Your task to perform on an android device: turn on the 12-hour format for clock Image 0: 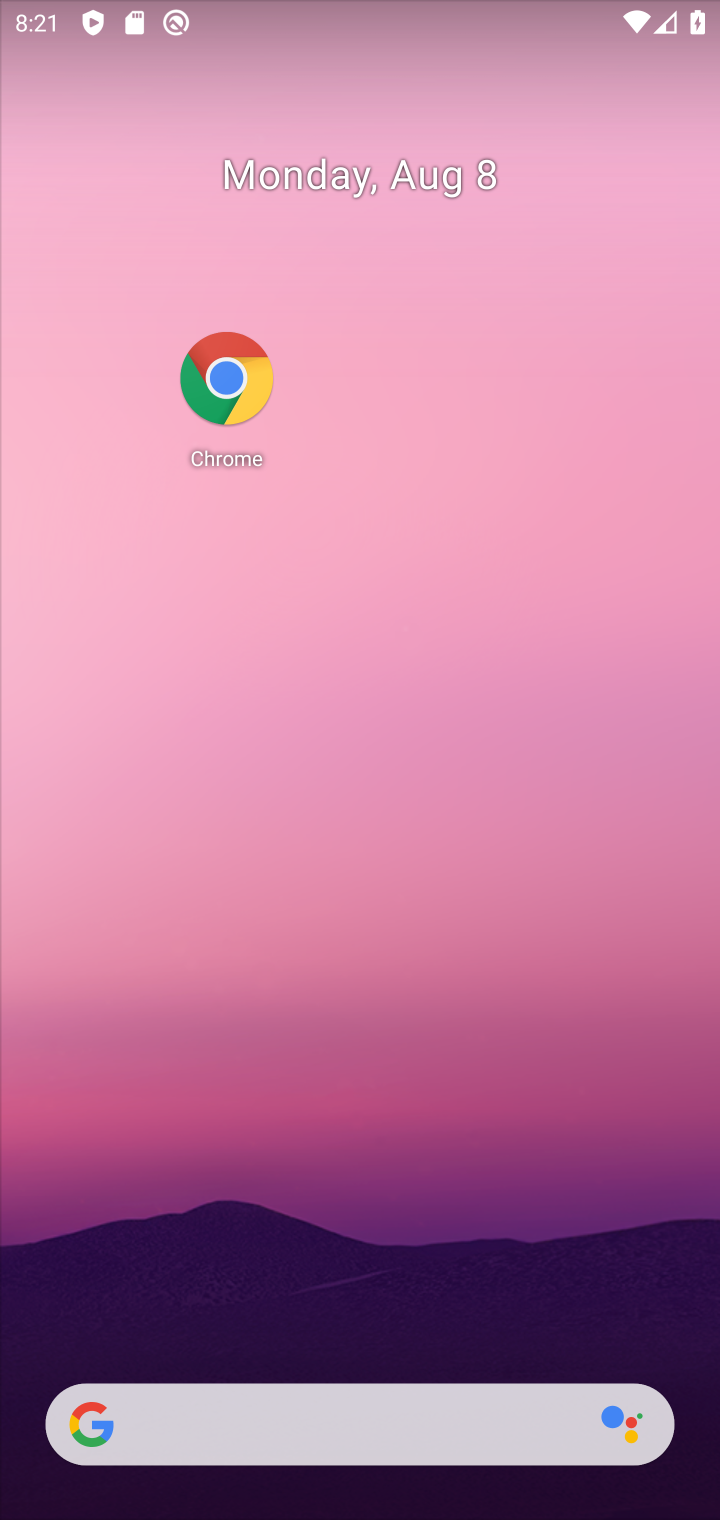
Step 0: drag from (239, 1276) to (407, 339)
Your task to perform on an android device: turn on the 12-hour format for clock Image 1: 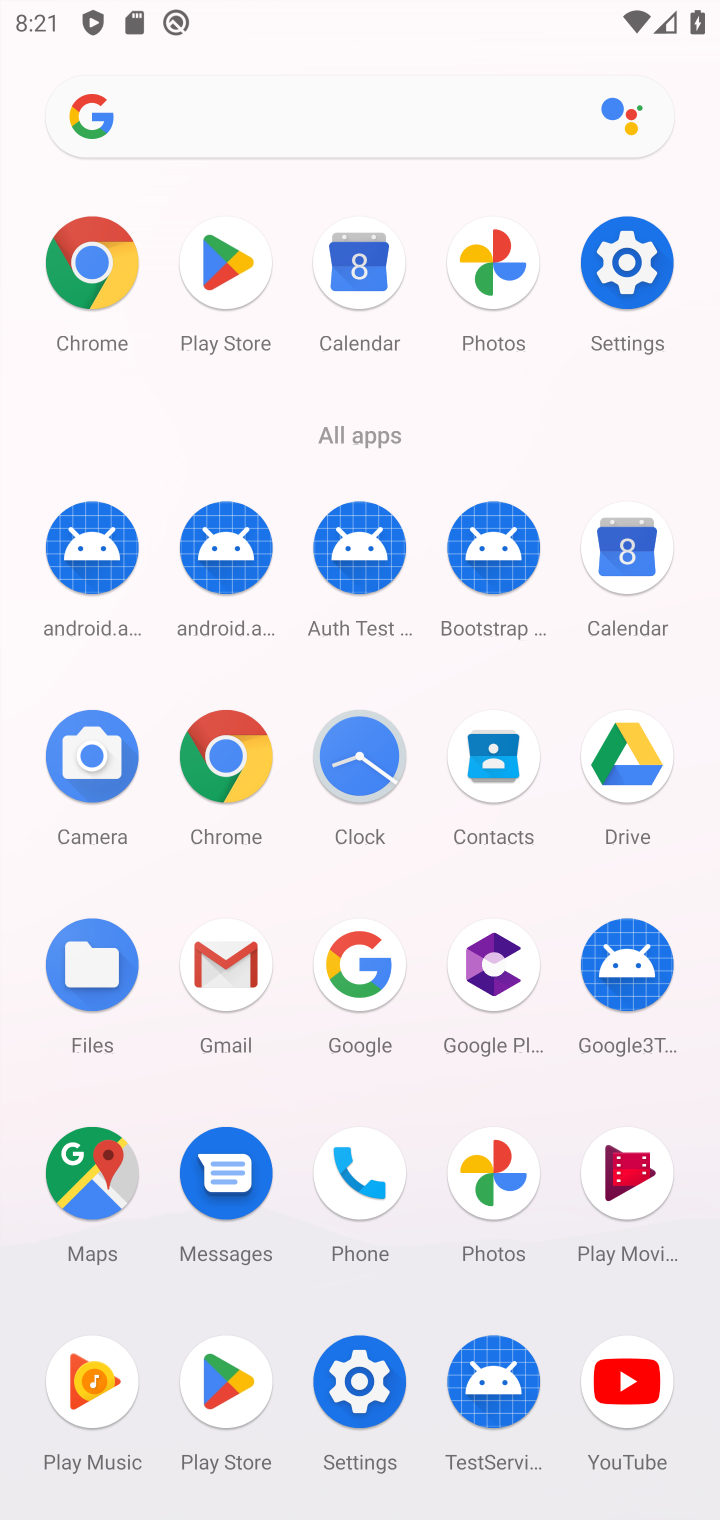
Step 1: click (369, 766)
Your task to perform on an android device: turn on the 12-hour format for clock Image 2: 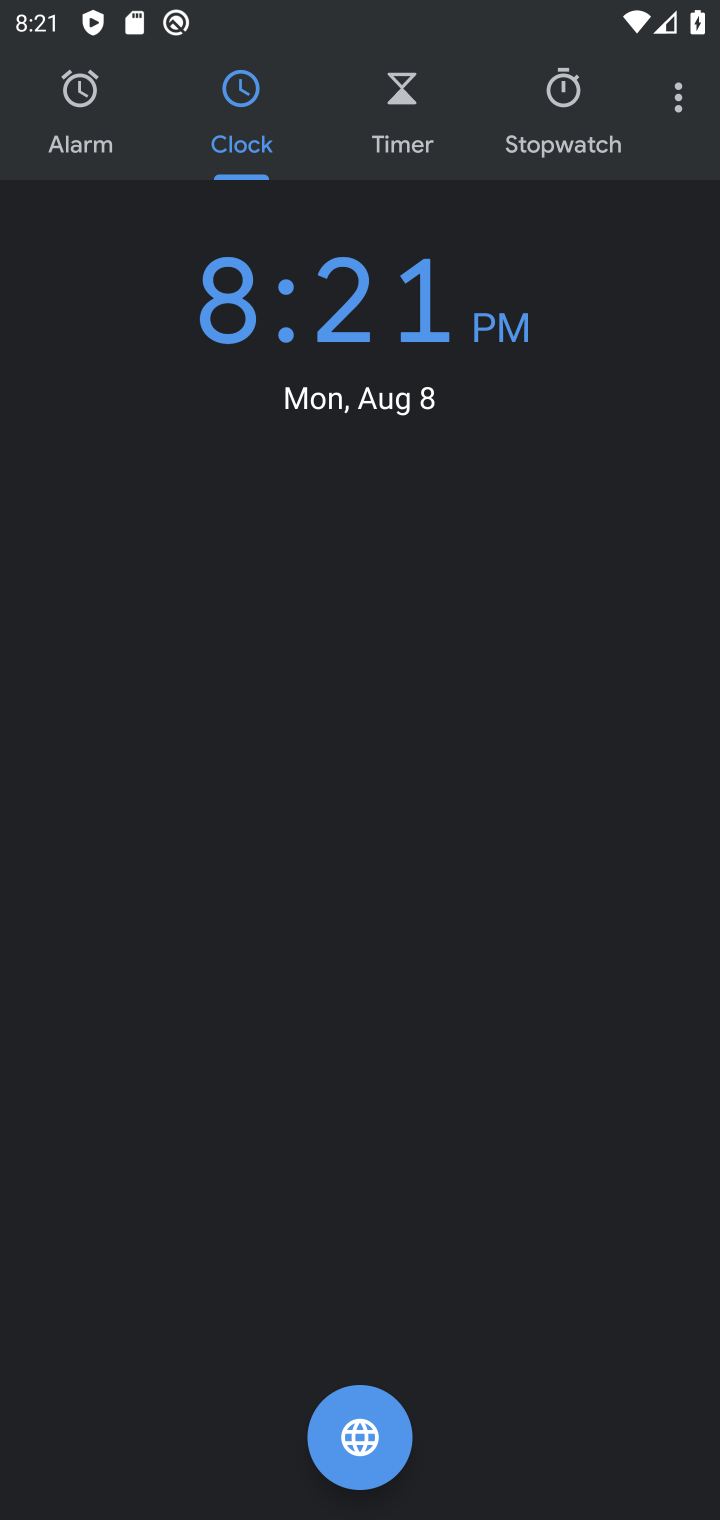
Step 2: click (686, 85)
Your task to perform on an android device: turn on the 12-hour format for clock Image 3: 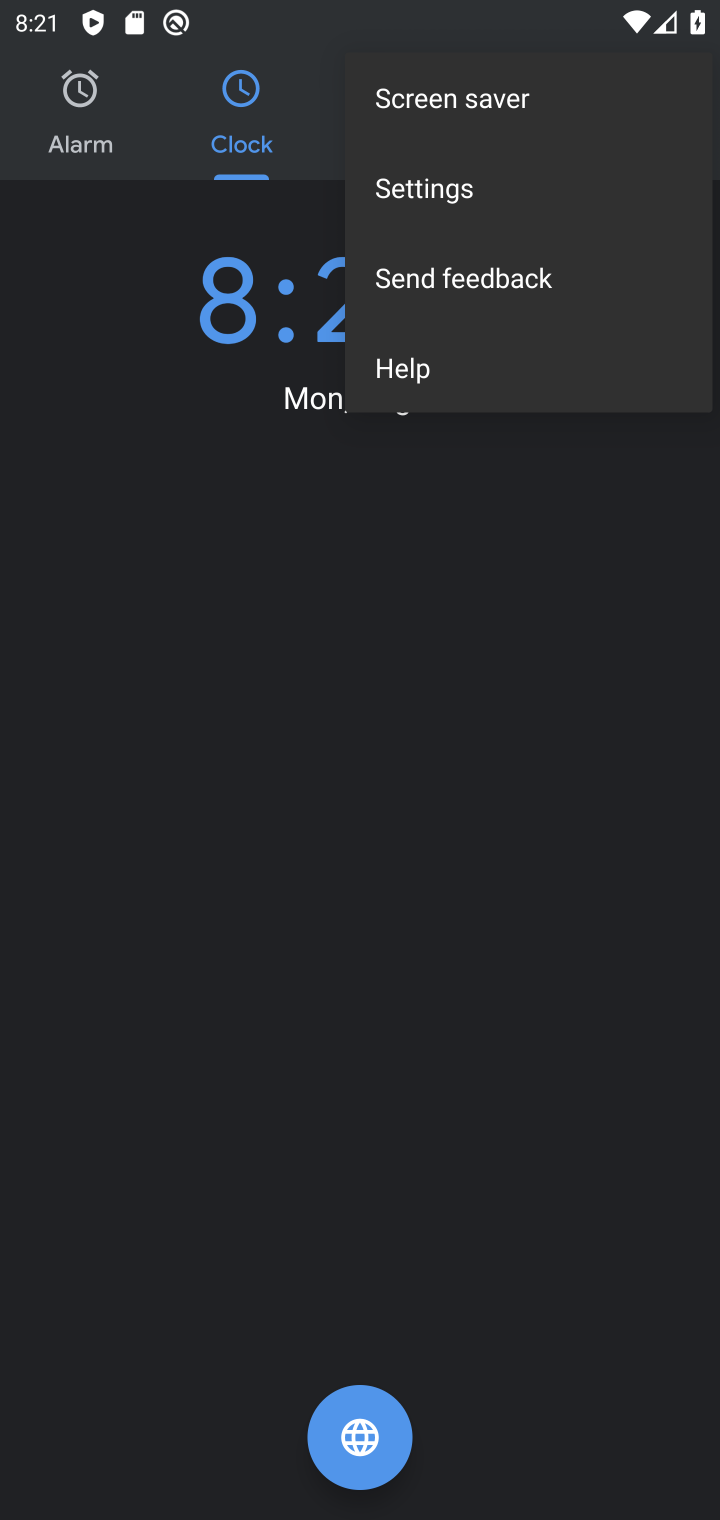
Step 3: click (429, 166)
Your task to perform on an android device: turn on the 12-hour format for clock Image 4: 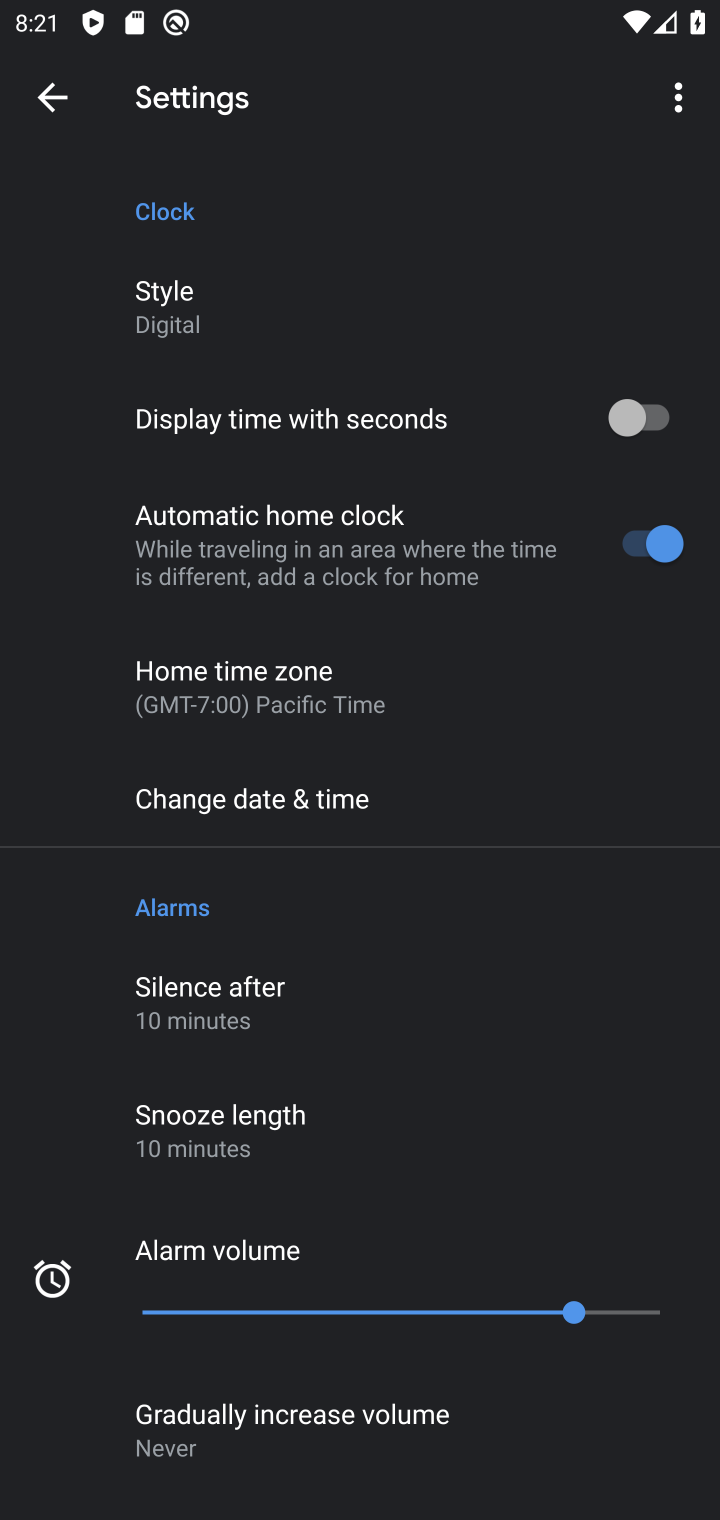
Step 4: click (321, 796)
Your task to perform on an android device: turn on the 12-hour format for clock Image 5: 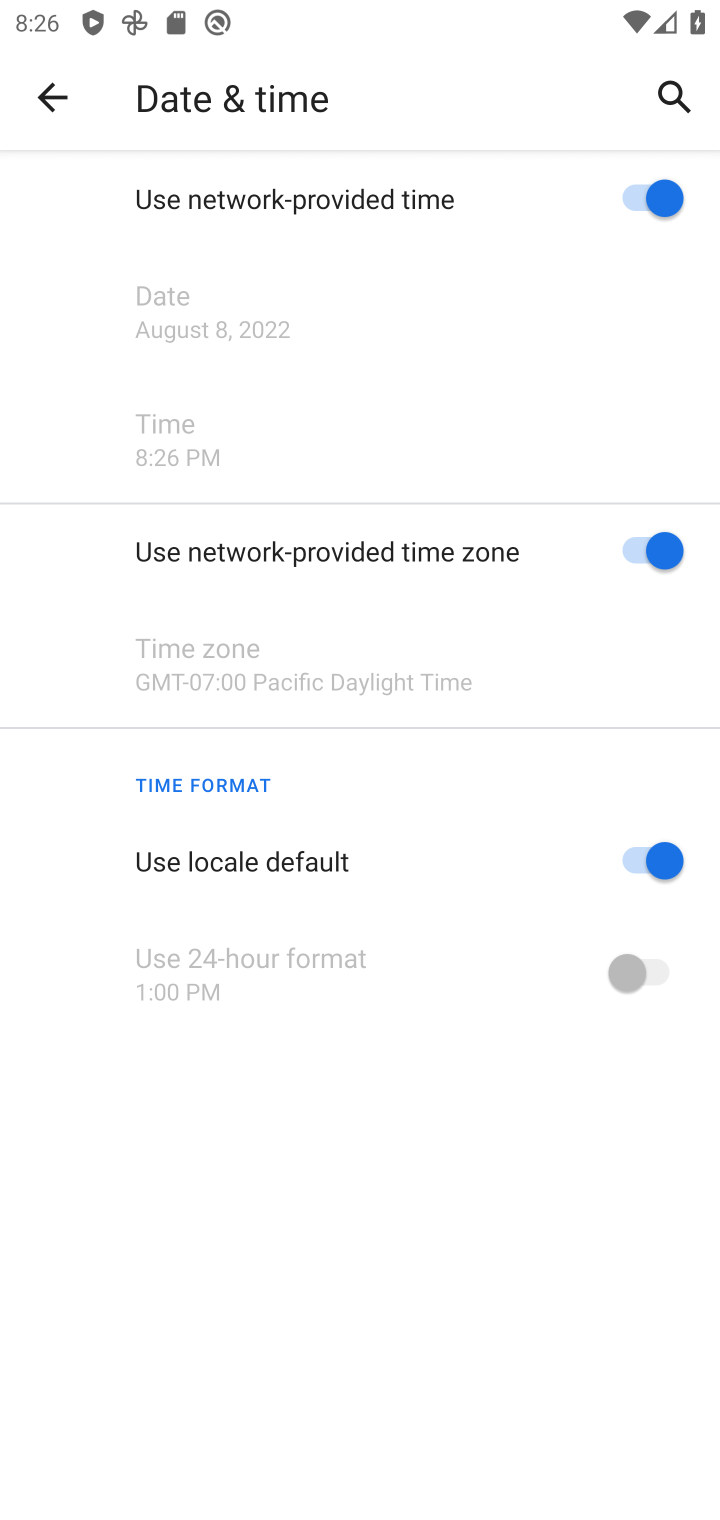
Step 5: task complete